Your task to perform on an android device: set the stopwatch Image 0: 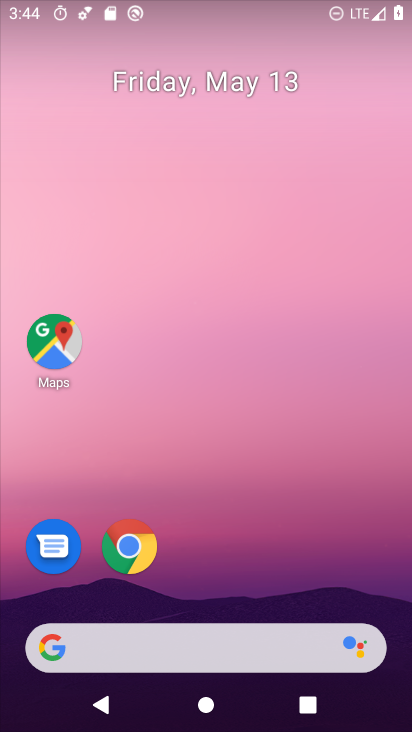
Step 0: drag from (236, 672) to (278, 169)
Your task to perform on an android device: set the stopwatch Image 1: 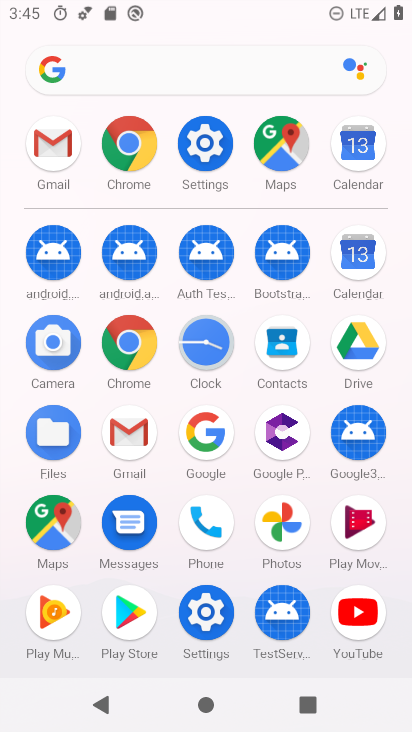
Step 1: click (216, 351)
Your task to perform on an android device: set the stopwatch Image 2: 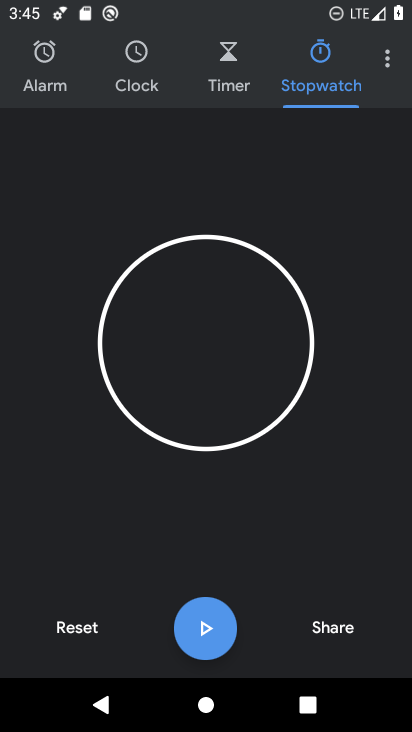
Step 2: click (224, 626)
Your task to perform on an android device: set the stopwatch Image 3: 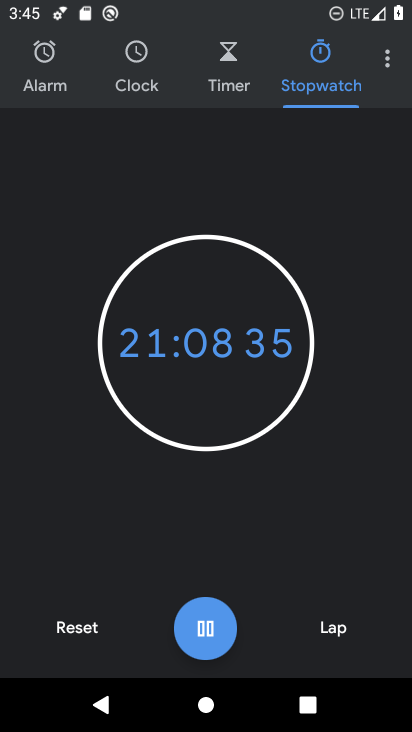
Step 3: click (224, 626)
Your task to perform on an android device: set the stopwatch Image 4: 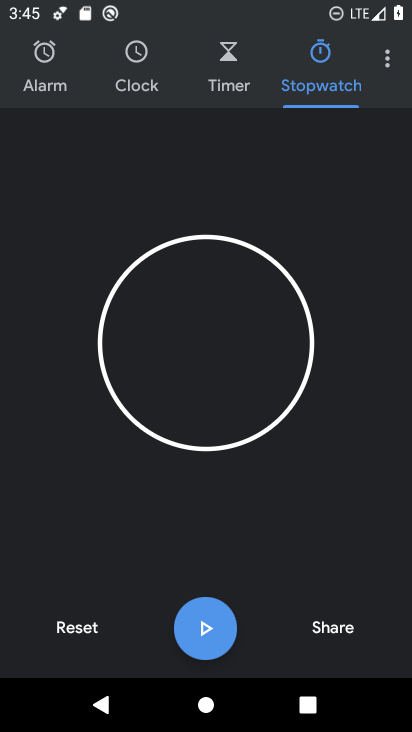
Step 4: task complete